Your task to perform on an android device: Go to notification settings Image 0: 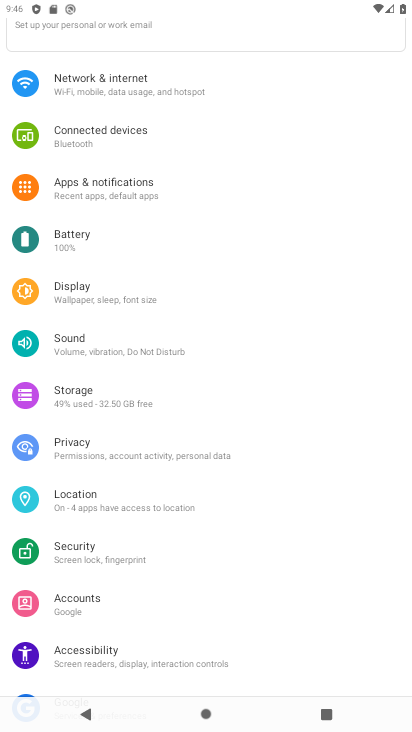
Step 0: click (189, 181)
Your task to perform on an android device: Go to notification settings Image 1: 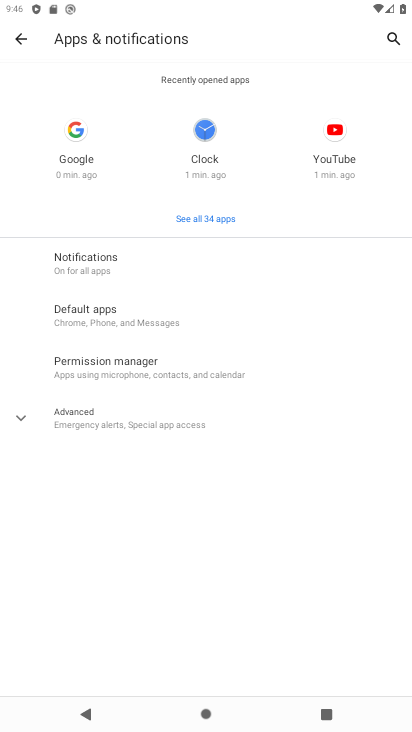
Step 1: click (109, 258)
Your task to perform on an android device: Go to notification settings Image 2: 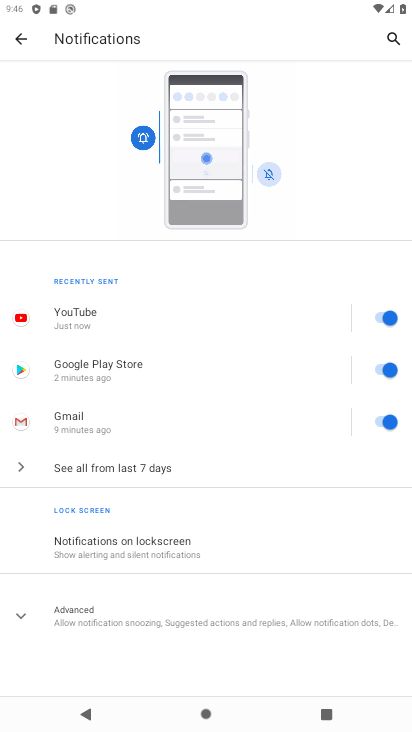
Step 2: task complete